Your task to perform on an android device: search for starred emails in the gmail app Image 0: 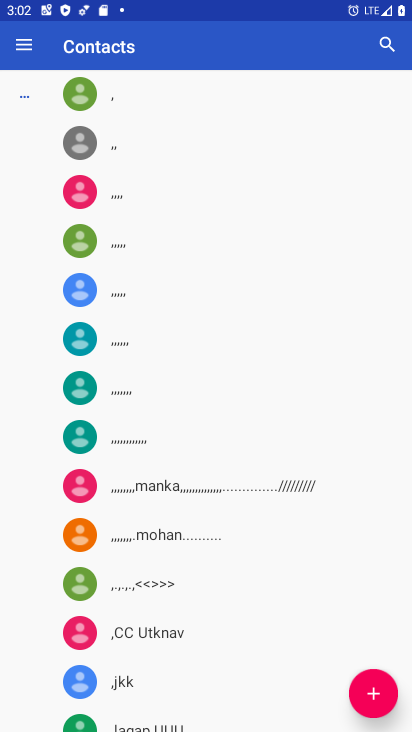
Step 0: press home button
Your task to perform on an android device: search for starred emails in the gmail app Image 1: 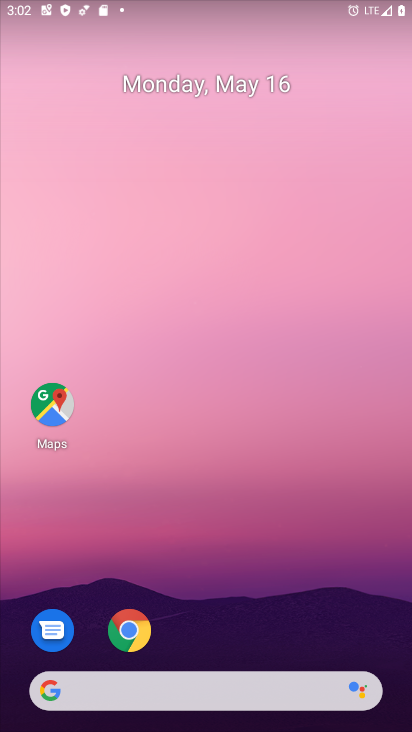
Step 1: drag from (227, 633) to (255, 101)
Your task to perform on an android device: search for starred emails in the gmail app Image 2: 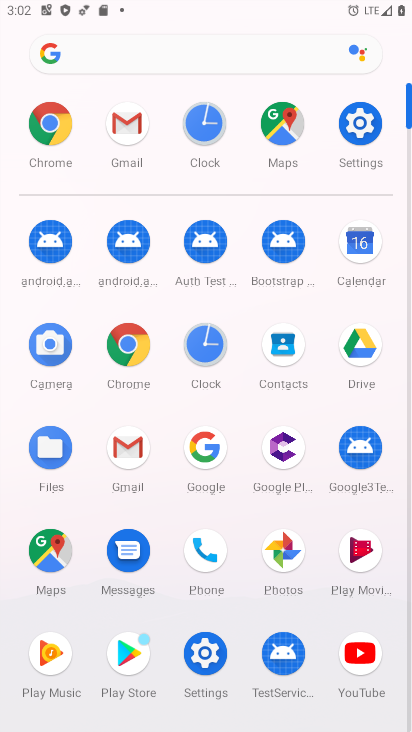
Step 2: click (122, 442)
Your task to perform on an android device: search for starred emails in the gmail app Image 3: 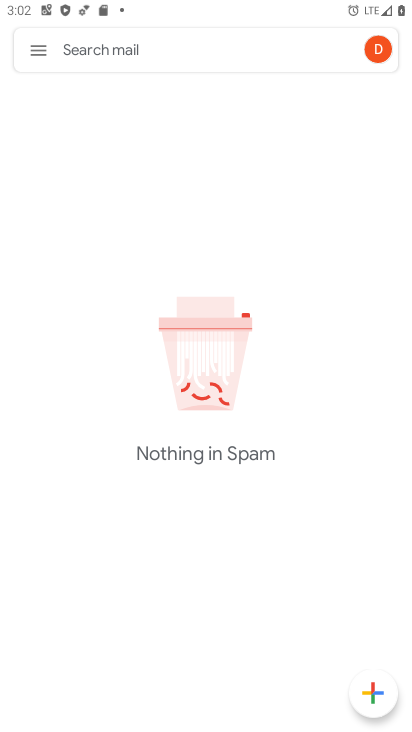
Step 3: click (28, 45)
Your task to perform on an android device: search for starred emails in the gmail app Image 4: 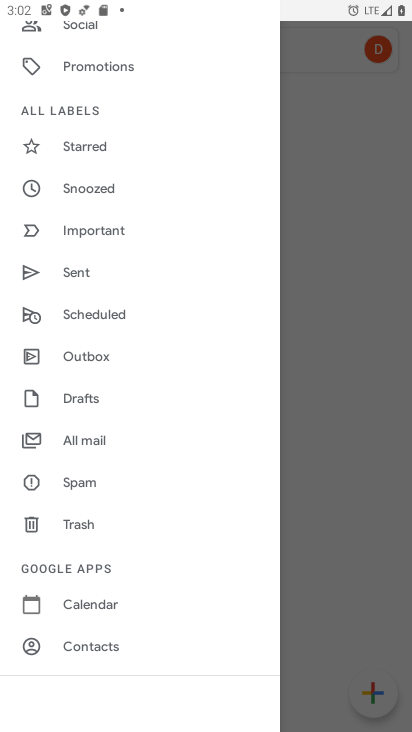
Step 4: click (111, 139)
Your task to perform on an android device: search for starred emails in the gmail app Image 5: 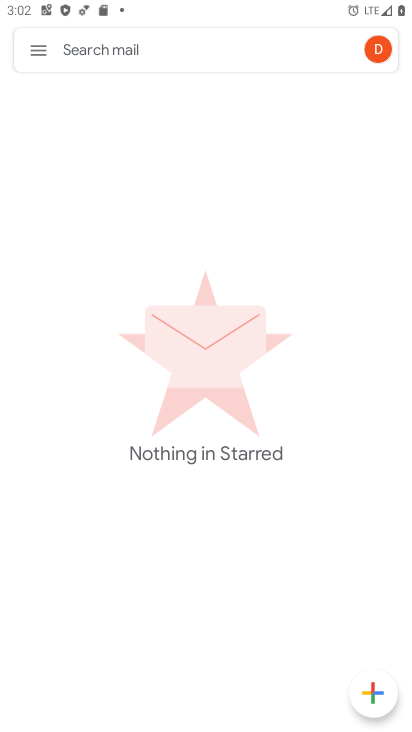
Step 5: task complete